Your task to perform on an android device: When is my next meeting? Image 0: 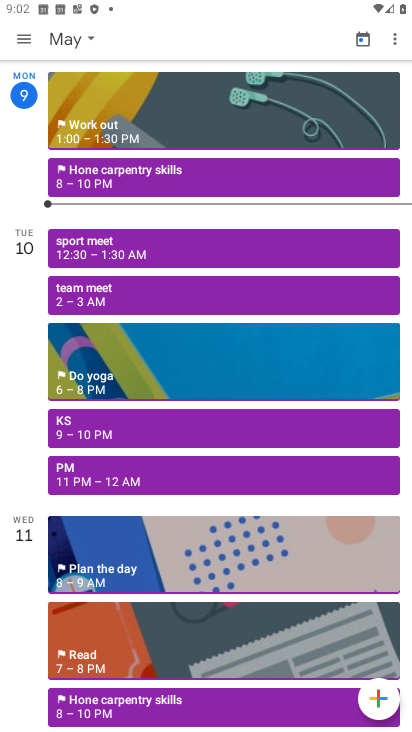
Step 0: press home button
Your task to perform on an android device: When is my next meeting? Image 1: 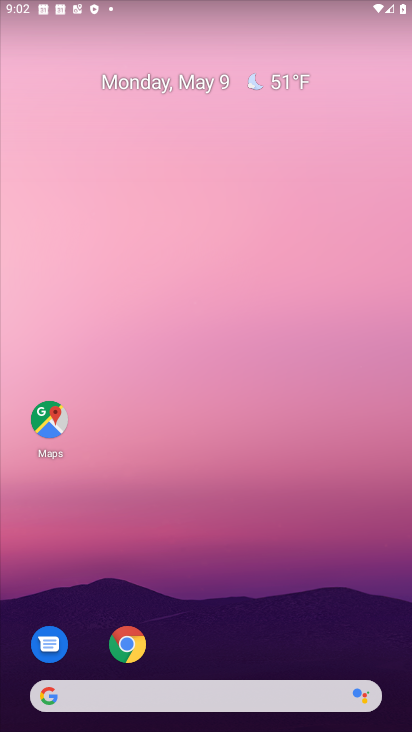
Step 1: drag from (225, 675) to (232, 8)
Your task to perform on an android device: When is my next meeting? Image 2: 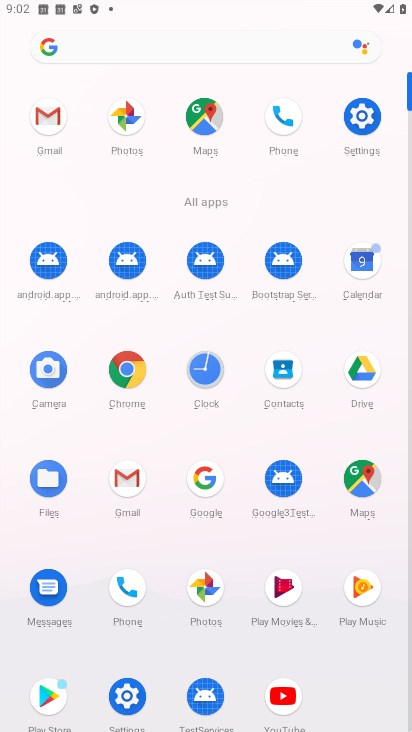
Step 2: click (356, 255)
Your task to perform on an android device: When is my next meeting? Image 3: 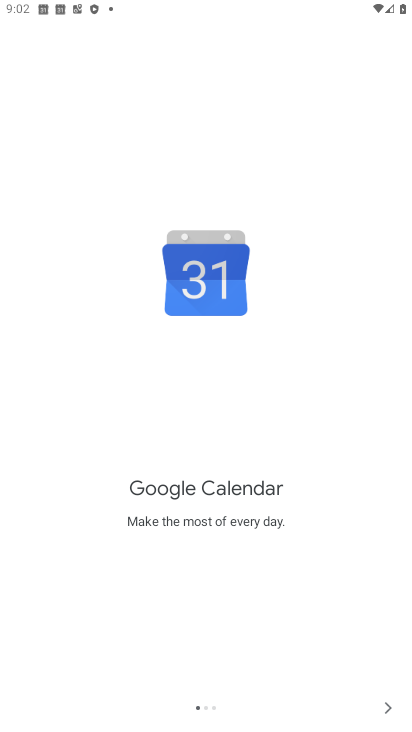
Step 3: click (389, 698)
Your task to perform on an android device: When is my next meeting? Image 4: 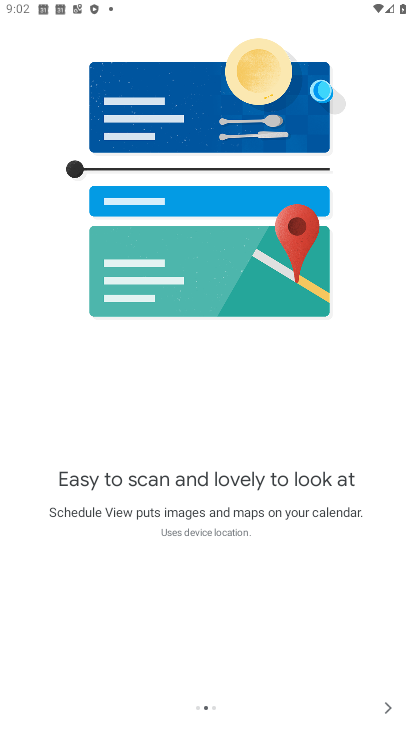
Step 4: click (390, 698)
Your task to perform on an android device: When is my next meeting? Image 5: 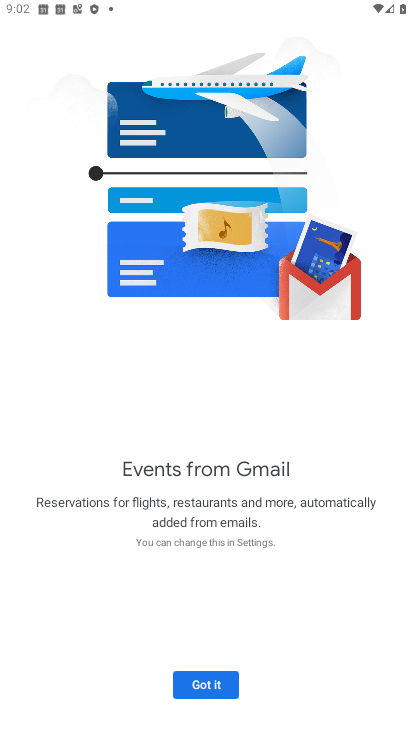
Step 5: click (223, 687)
Your task to perform on an android device: When is my next meeting? Image 6: 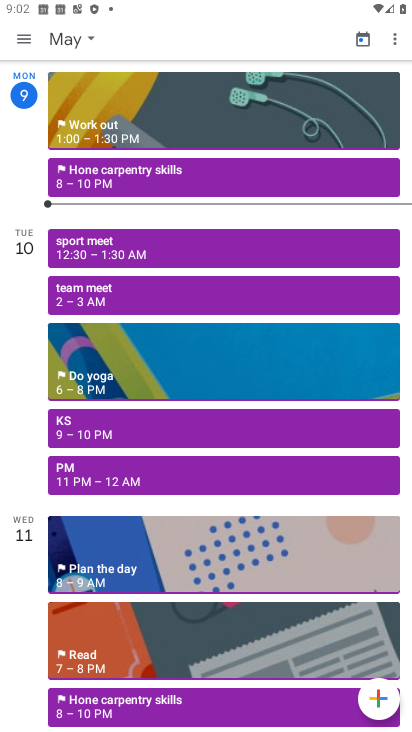
Step 6: click (12, 40)
Your task to perform on an android device: When is my next meeting? Image 7: 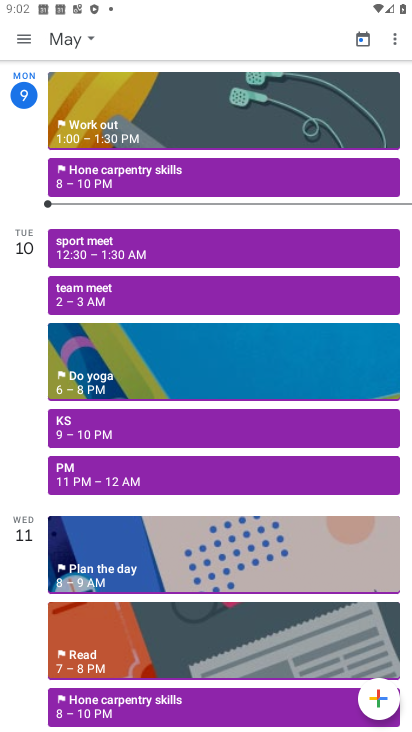
Step 7: click (23, 42)
Your task to perform on an android device: When is my next meeting? Image 8: 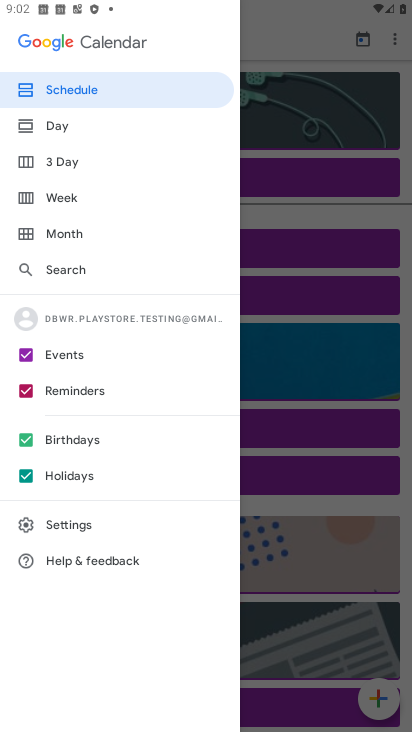
Step 8: click (67, 205)
Your task to perform on an android device: When is my next meeting? Image 9: 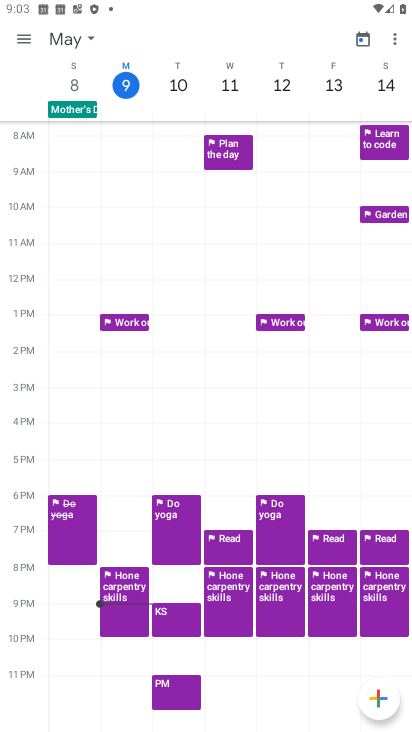
Step 9: task complete